Your task to perform on an android device: turn off javascript in the chrome app Image 0: 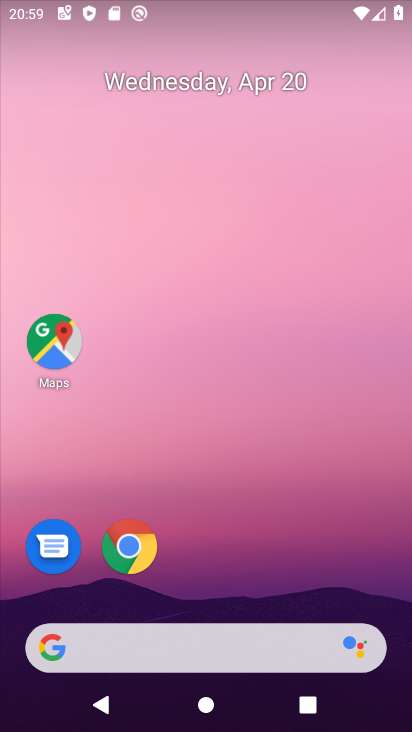
Step 0: click (132, 549)
Your task to perform on an android device: turn off javascript in the chrome app Image 1: 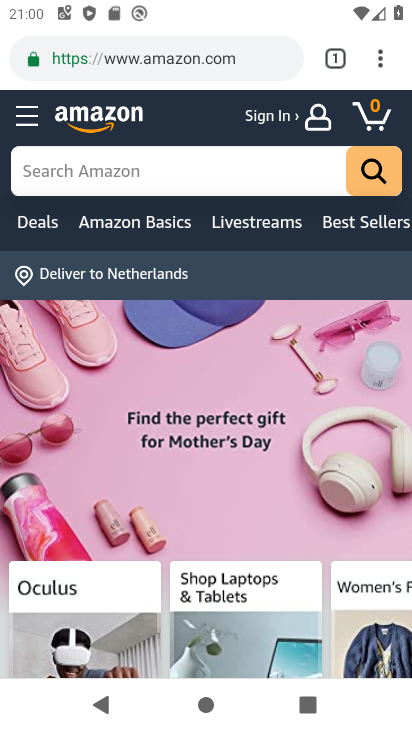
Step 1: drag from (264, 596) to (269, 538)
Your task to perform on an android device: turn off javascript in the chrome app Image 2: 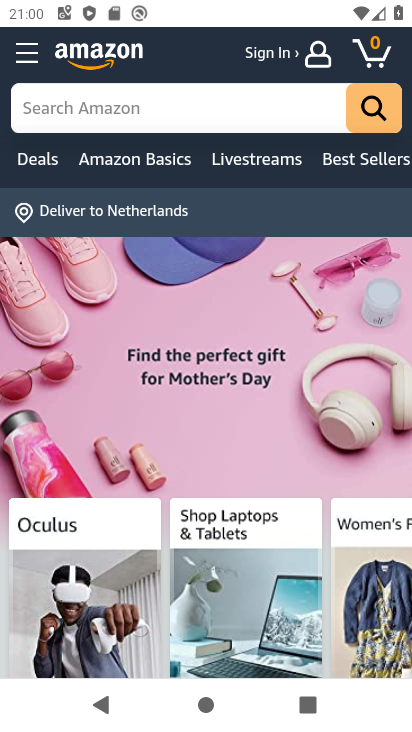
Step 2: drag from (355, 167) to (330, 380)
Your task to perform on an android device: turn off javascript in the chrome app Image 3: 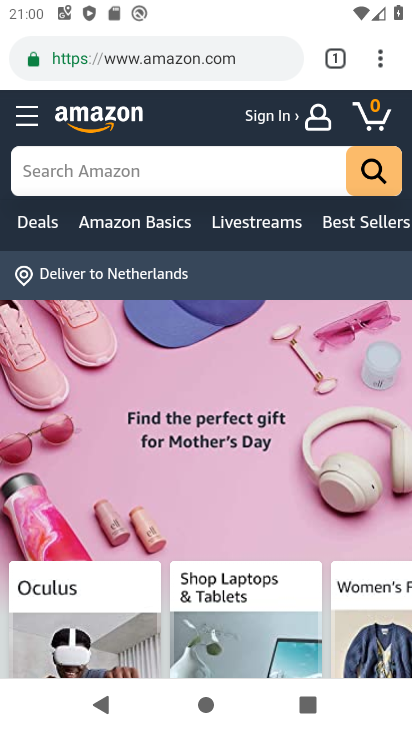
Step 3: click (383, 50)
Your task to perform on an android device: turn off javascript in the chrome app Image 4: 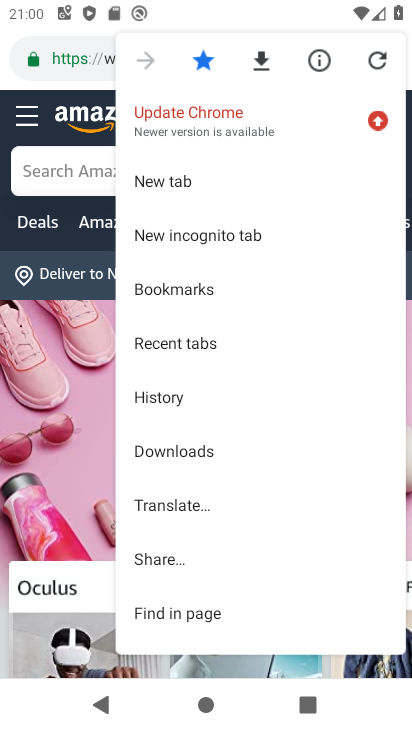
Step 4: drag from (221, 583) to (208, 295)
Your task to perform on an android device: turn off javascript in the chrome app Image 5: 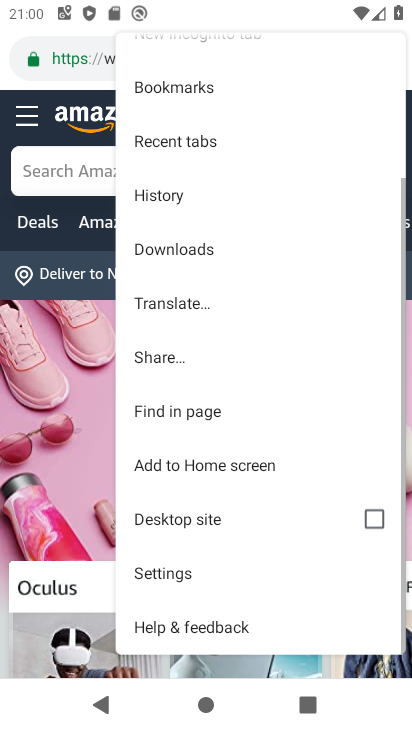
Step 5: click (198, 576)
Your task to perform on an android device: turn off javascript in the chrome app Image 6: 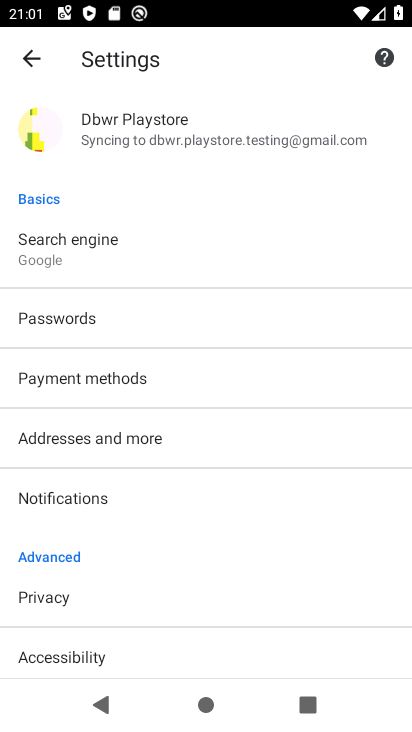
Step 6: drag from (196, 622) to (179, 382)
Your task to perform on an android device: turn off javascript in the chrome app Image 7: 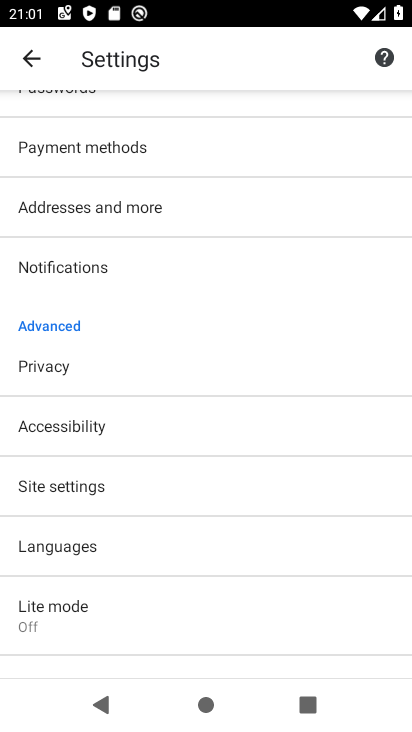
Step 7: click (102, 479)
Your task to perform on an android device: turn off javascript in the chrome app Image 8: 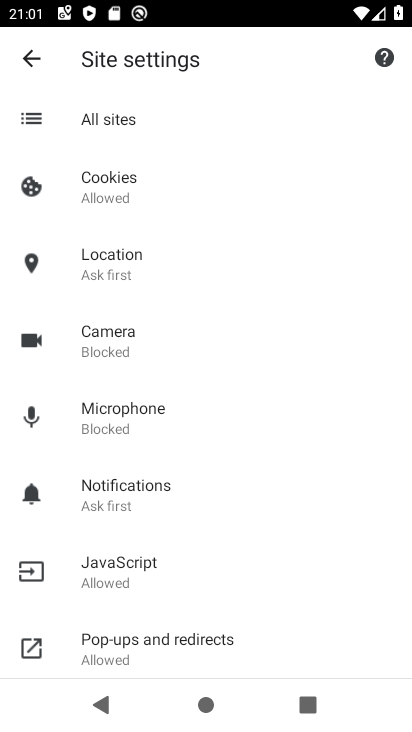
Step 8: click (144, 579)
Your task to perform on an android device: turn off javascript in the chrome app Image 9: 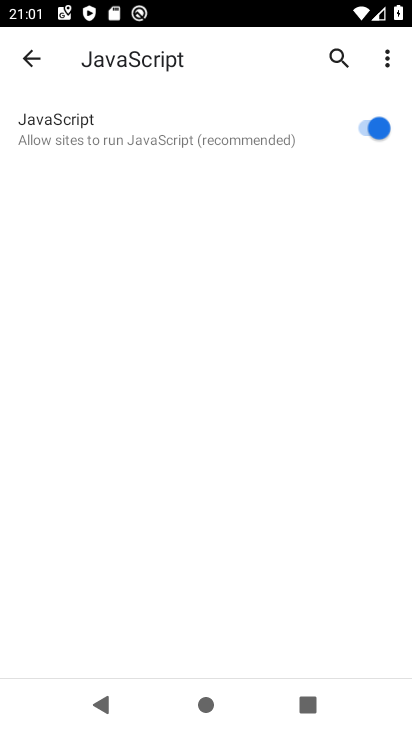
Step 9: click (372, 131)
Your task to perform on an android device: turn off javascript in the chrome app Image 10: 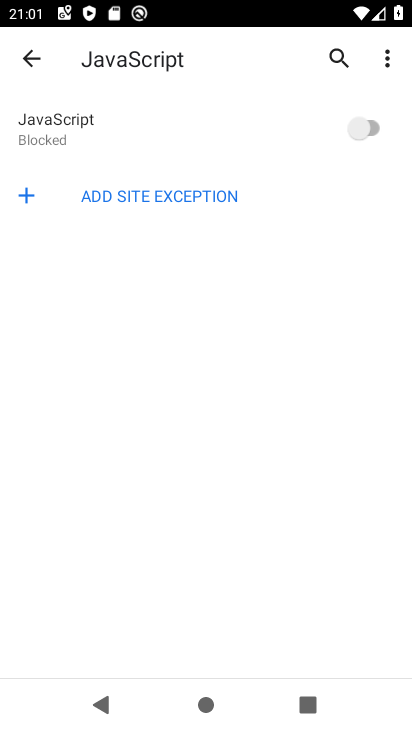
Step 10: task complete